Your task to perform on an android device: set the timer Image 0: 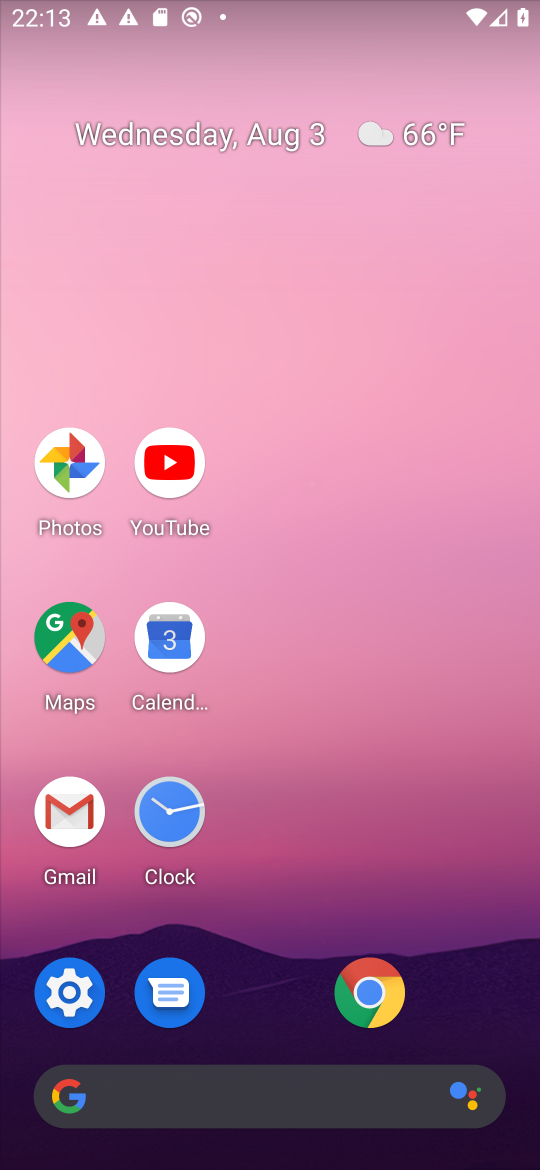
Step 0: click (169, 802)
Your task to perform on an android device: set the timer Image 1: 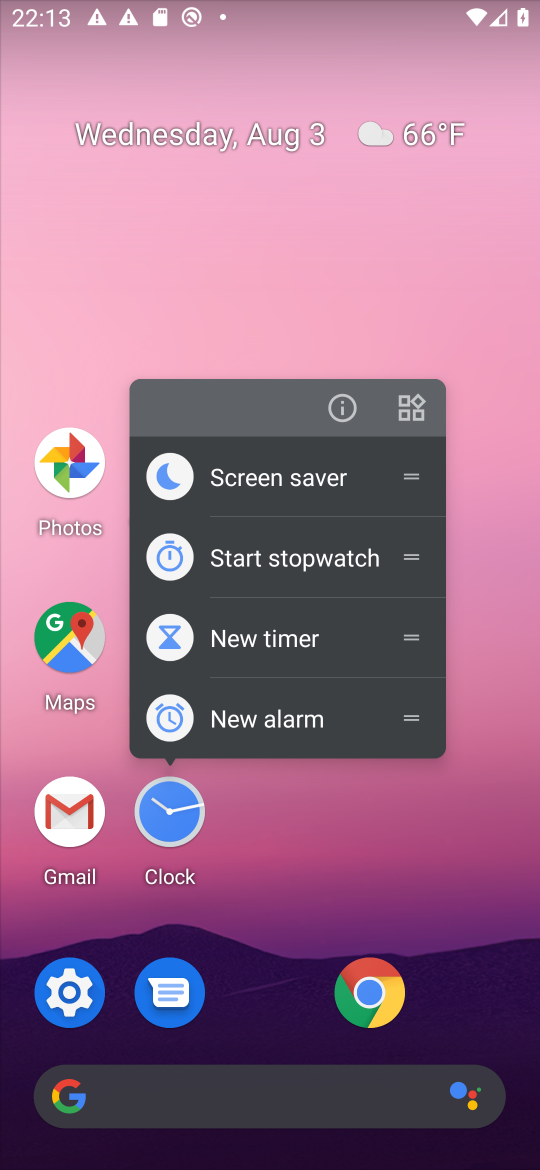
Step 1: click (169, 802)
Your task to perform on an android device: set the timer Image 2: 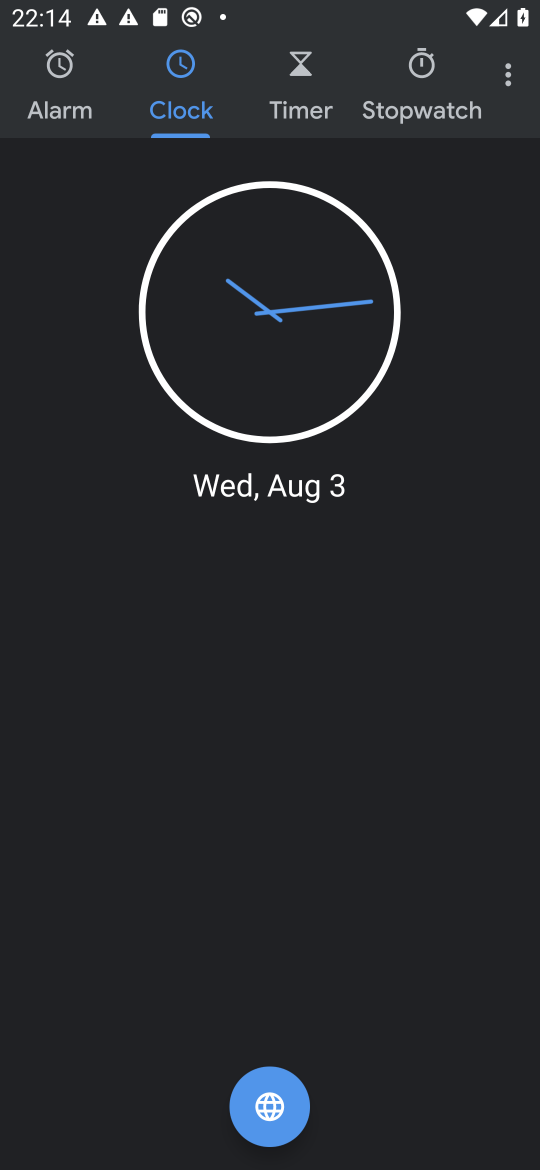
Step 2: click (301, 72)
Your task to perform on an android device: set the timer Image 3: 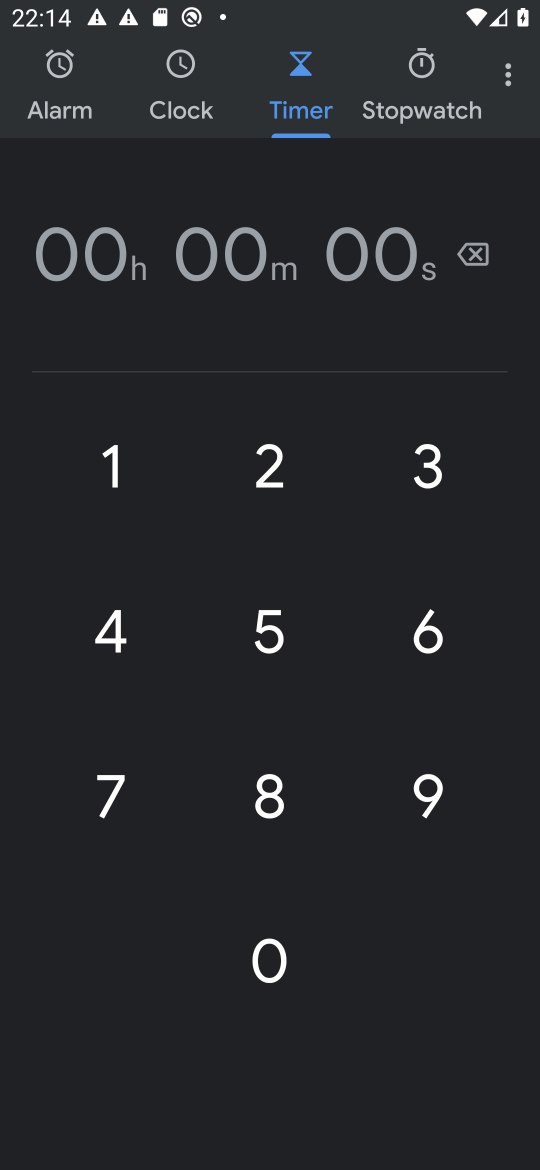
Step 3: click (108, 468)
Your task to perform on an android device: set the timer Image 4: 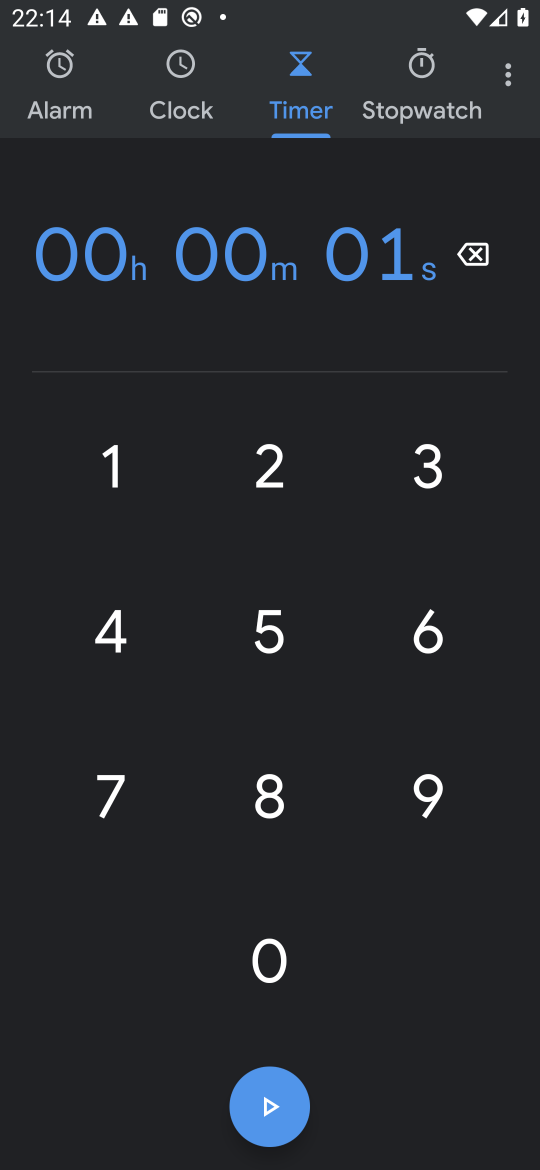
Step 4: click (108, 468)
Your task to perform on an android device: set the timer Image 5: 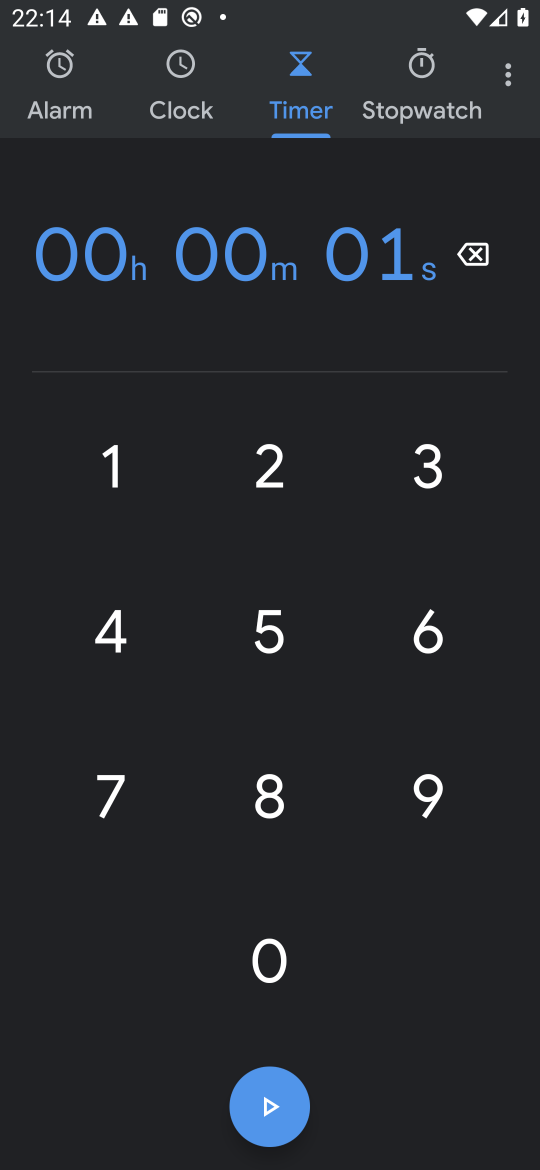
Step 5: click (108, 468)
Your task to perform on an android device: set the timer Image 6: 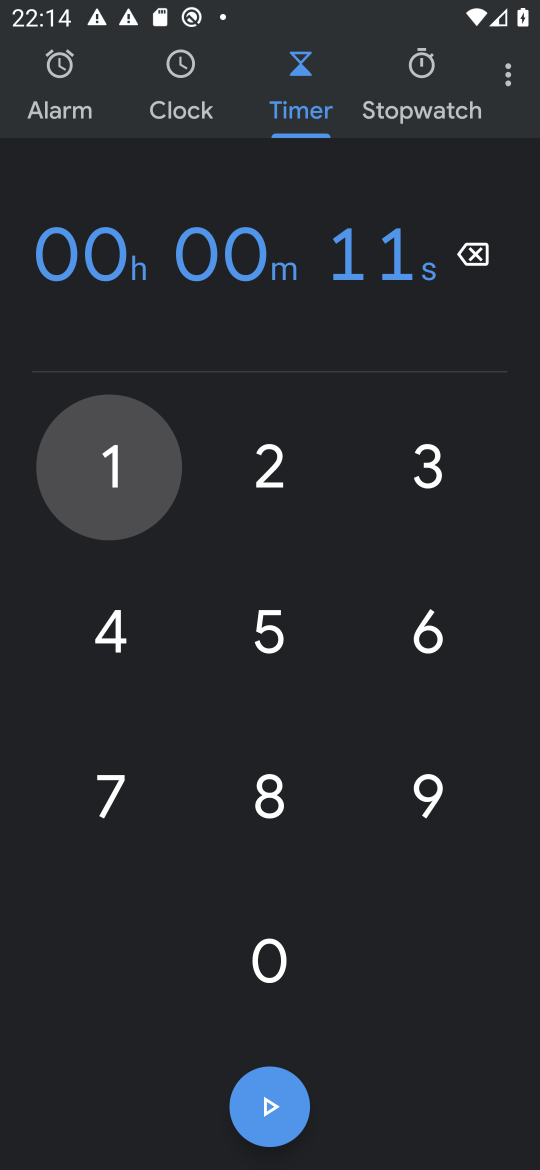
Step 6: click (108, 468)
Your task to perform on an android device: set the timer Image 7: 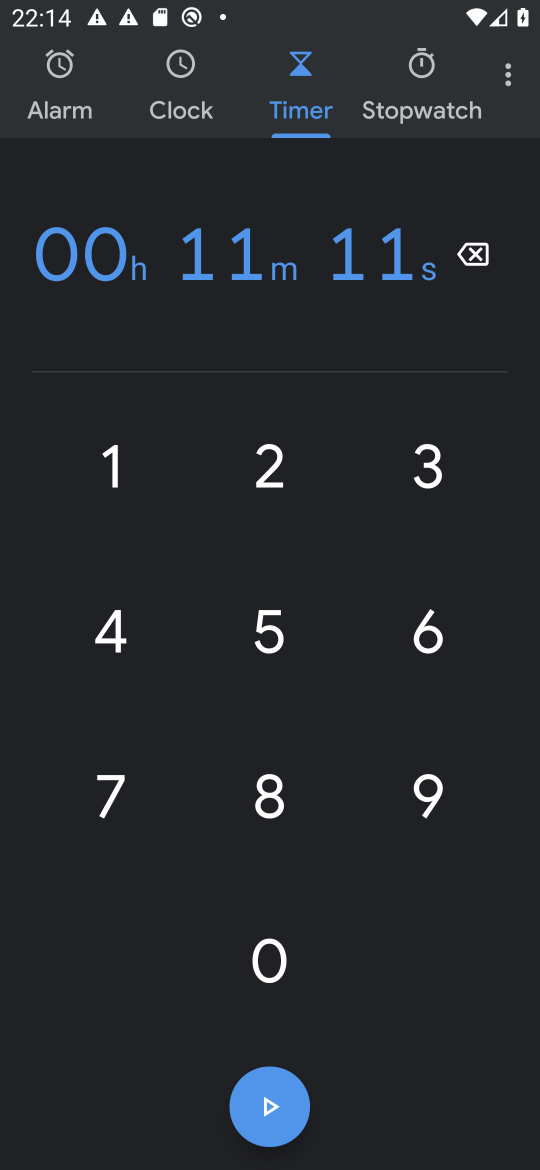
Step 7: click (108, 468)
Your task to perform on an android device: set the timer Image 8: 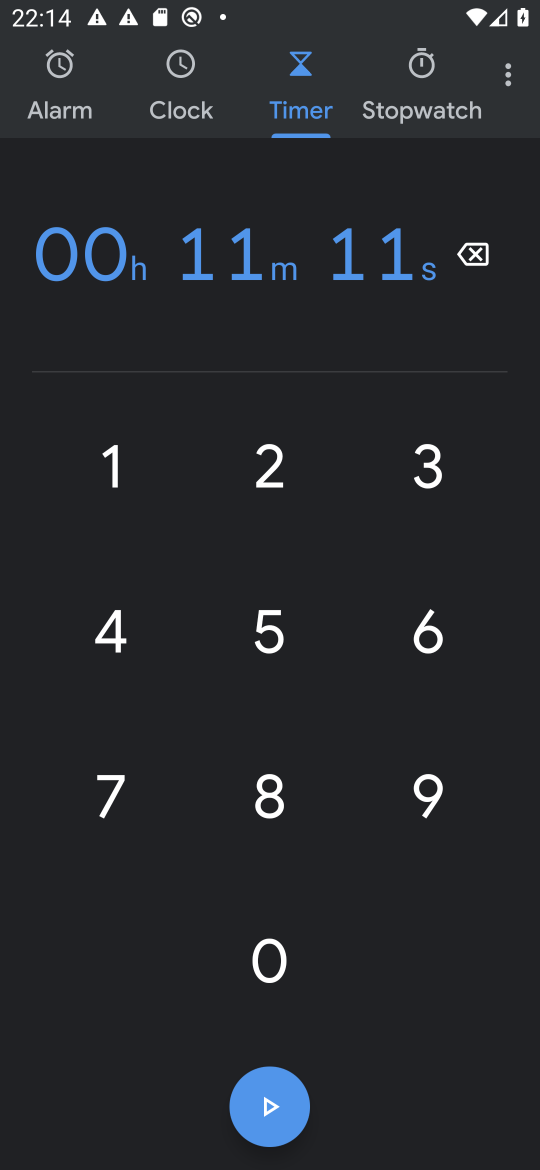
Step 8: click (108, 468)
Your task to perform on an android device: set the timer Image 9: 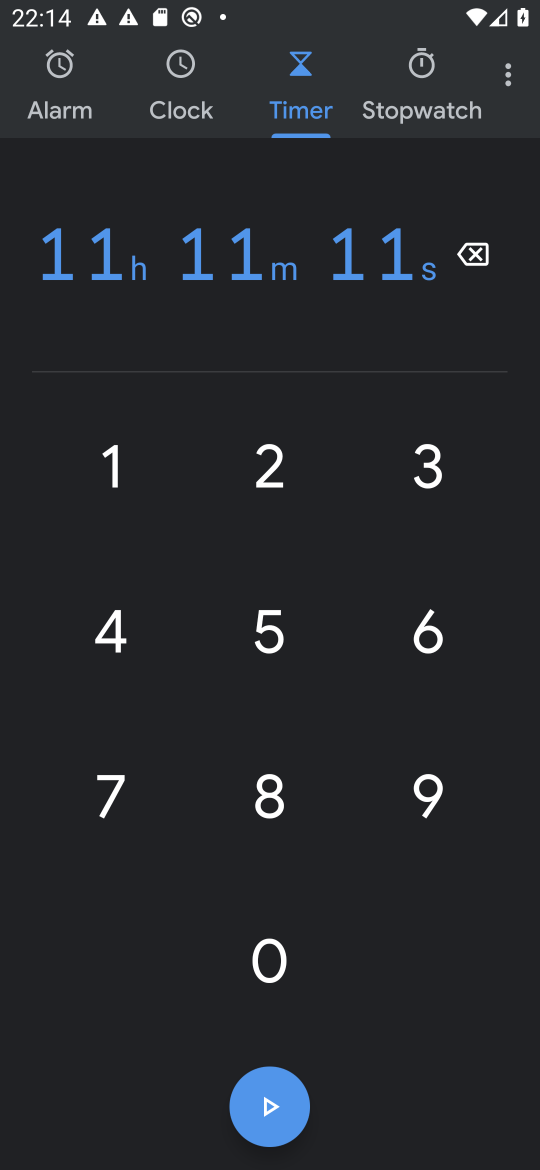
Step 9: task complete